Your task to perform on an android device: Open wifi settings Image 0: 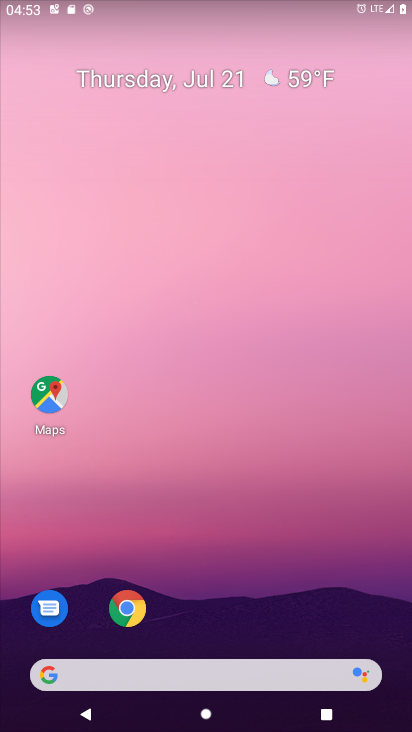
Step 0: drag from (305, 686) to (335, 129)
Your task to perform on an android device: Open wifi settings Image 1: 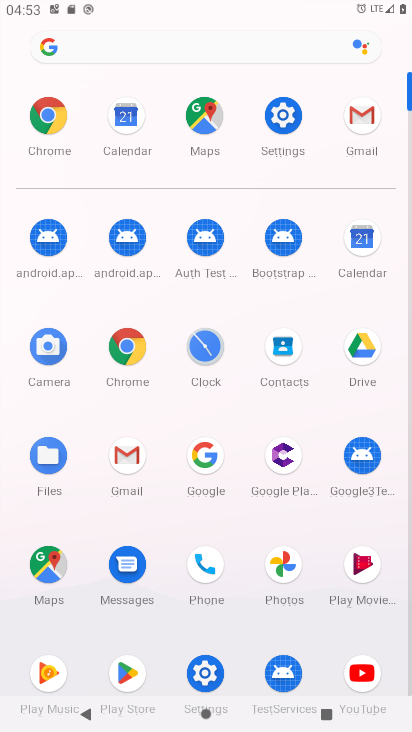
Step 1: click (274, 107)
Your task to perform on an android device: Open wifi settings Image 2: 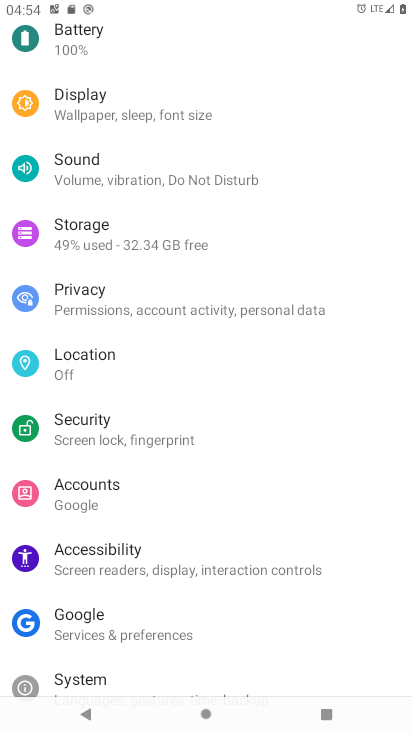
Step 2: drag from (134, 67) to (187, 485)
Your task to perform on an android device: Open wifi settings Image 3: 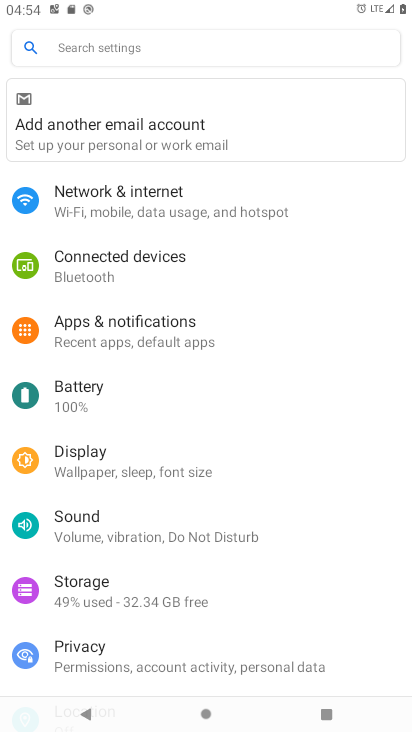
Step 3: click (145, 209)
Your task to perform on an android device: Open wifi settings Image 4: 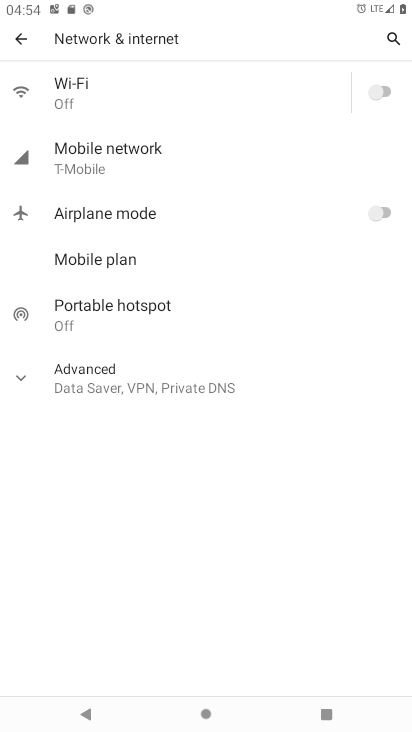
Step 4: click (186, 83)
Your task to perform on an android device: Open wifi settings Image 5: 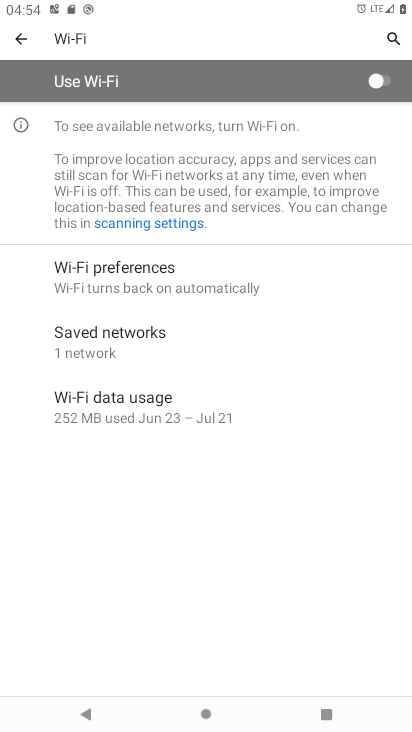
Step 5: task complete